Your task to perform on an android device: Go to accessibility settings Image 0: 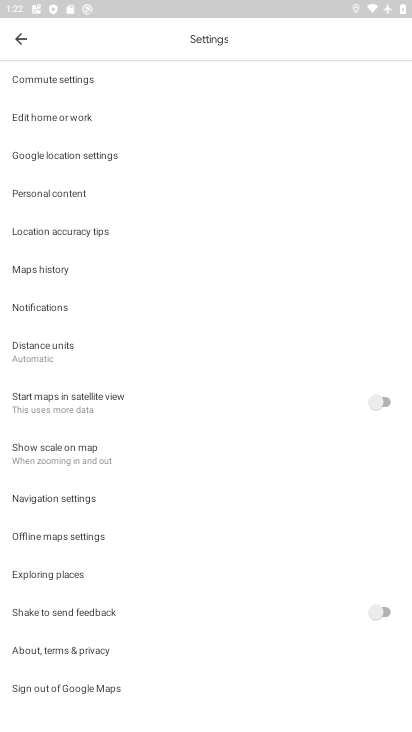
Step 0: press home button
Your task to perform on an android device: Go to accessibility settings Image 1: 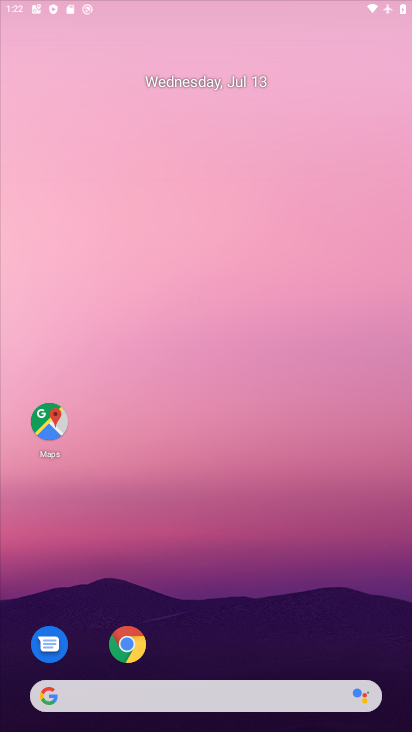
Step 1: drag from (256, 179) to (245, 59)
Your task to perform on an android device: Go to accessibility settings Image 2: 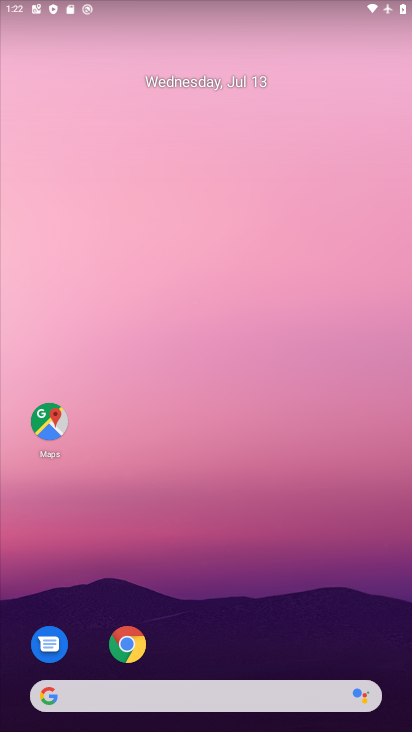
Step 2: drag from (259, 596) to (273, 122)
Your task to perform on an android device: Go to accessibility settings Image 3: 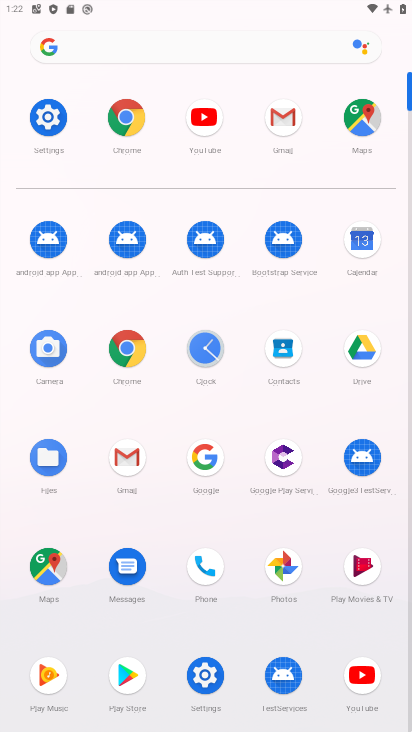
Step 3: click (51, 132)
Your task to perform on an android device: Go to accessibility settings Image 4: 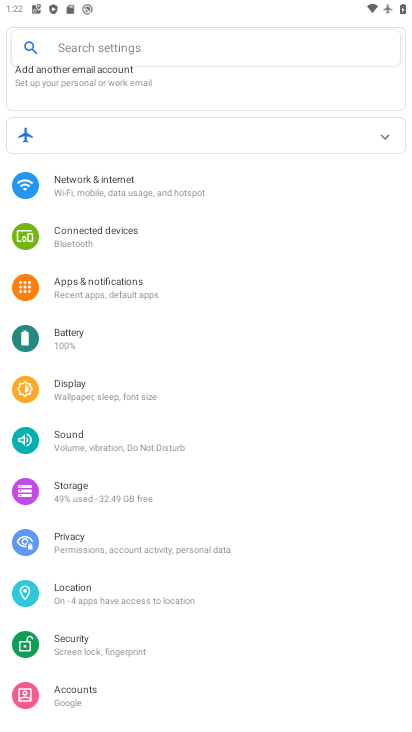
Step 4: drag from (221, 665) to (244, 294)
Your task to perform on an android device: Go to accessibility settings Image 5: 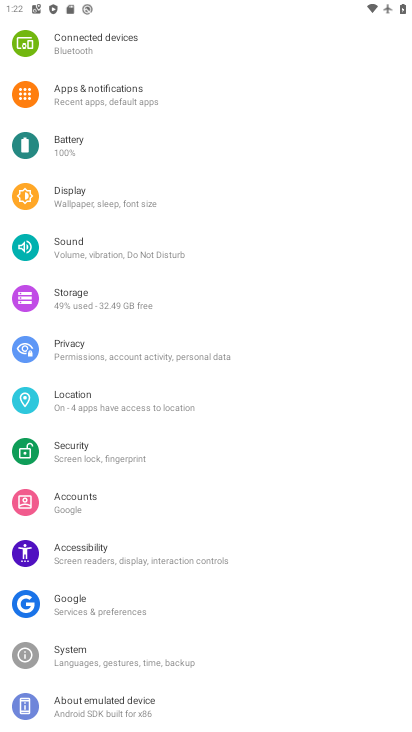
Step 5: click (98, 546)
Your task to perform on an android device: Go to accessibility settings Image 6: 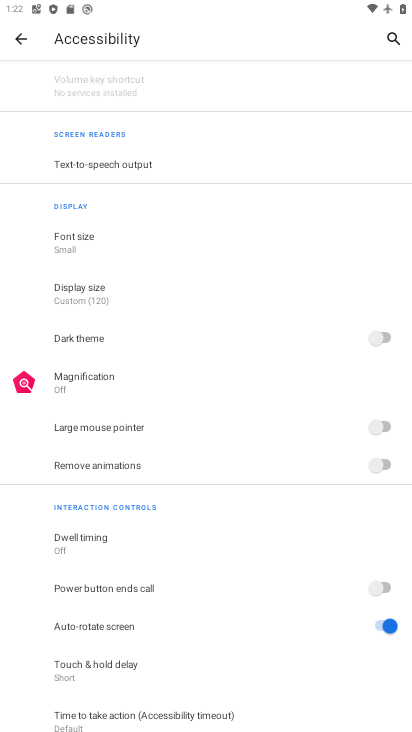
Step 6: task complete